Your task to perform on an android device: Open privacy settings Image 0: 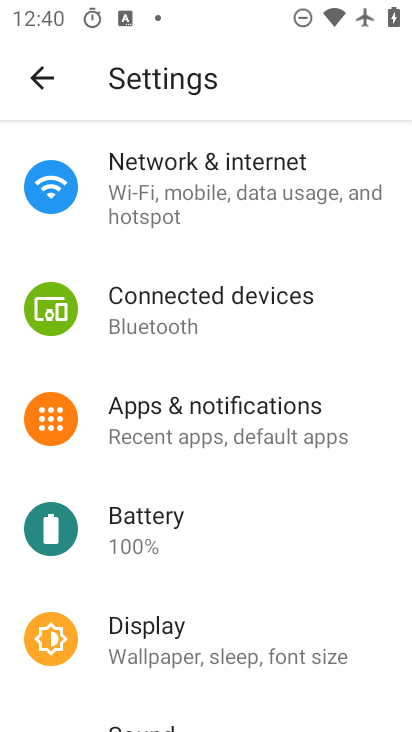
Step 0: drag from (265, 492) to (299, 303)
Your task to perform on an android device: Open privacy settings Image 1: 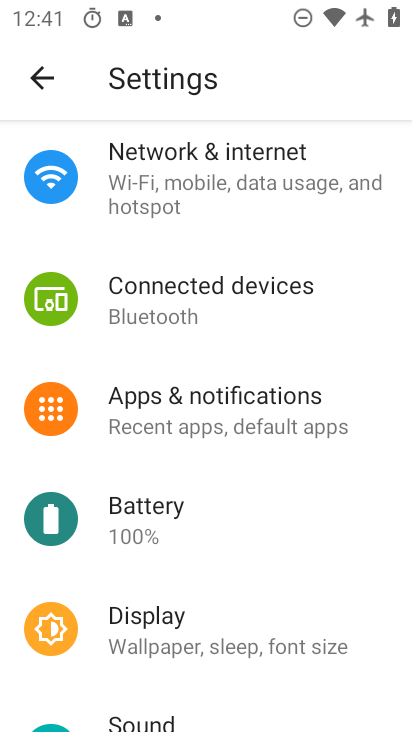
Step 1: drag from (225, 514) to (245, 379)
Your task to perform on an android device: Open privacy settings Image 2: 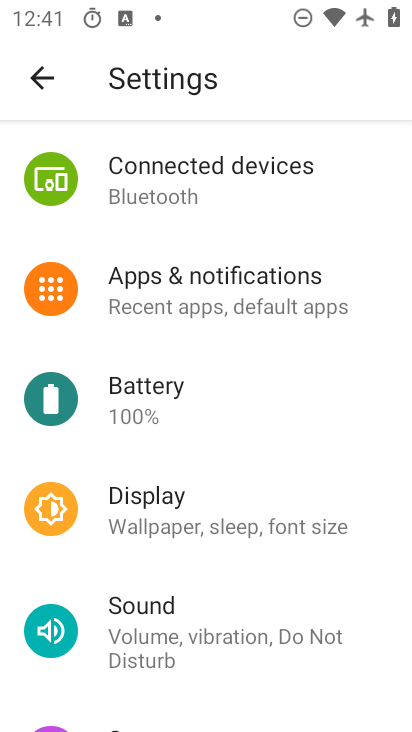
Step 2: drag from (211, 654) to (231, 385)
Your task to perform on an android device: Open privacy settings Image 3: 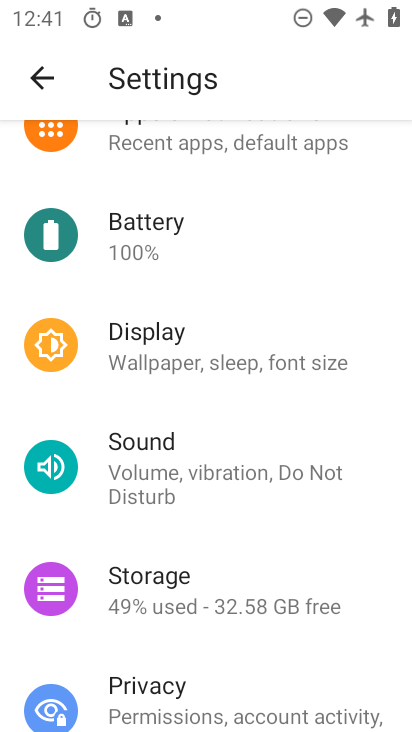
Step 3: click (200, 692)
Your task to perform on an android device: Open privacy settings Image 4: 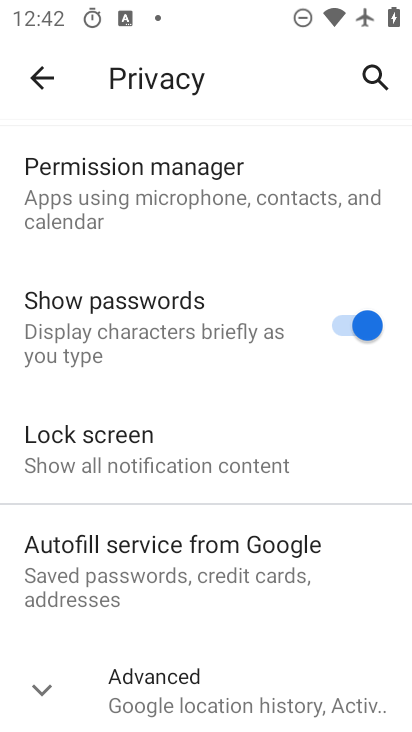
Step 4: click (200, 692)
Your task to perform on an android device: Open privacy settings Image 5: 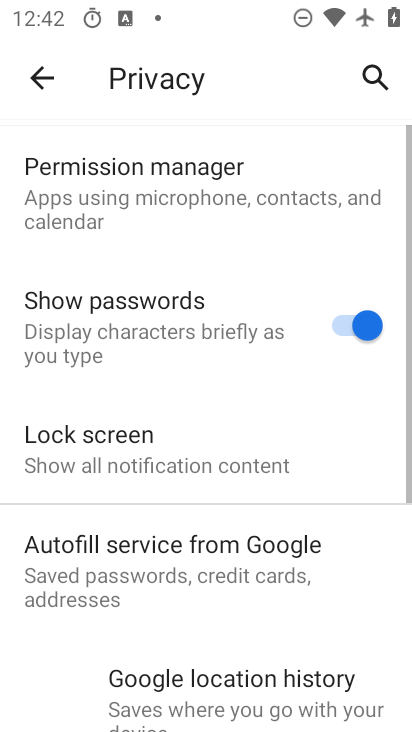
Step 5: task complete